Your task to perform on an android device: turn on wifi Image 0: 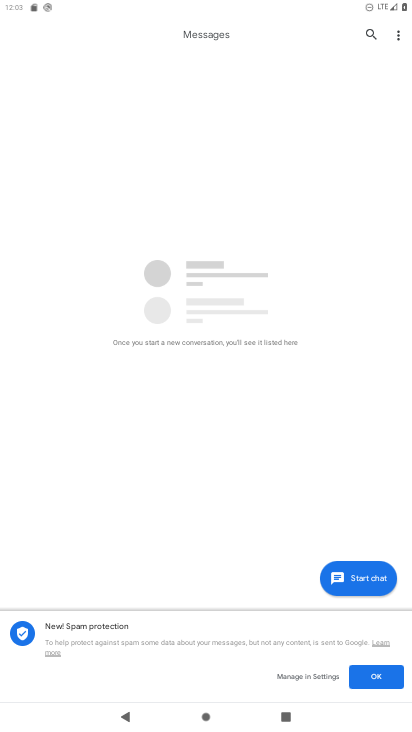
Step 0: press home button
Your task to perform on an android device: turn on wifi Image 1: 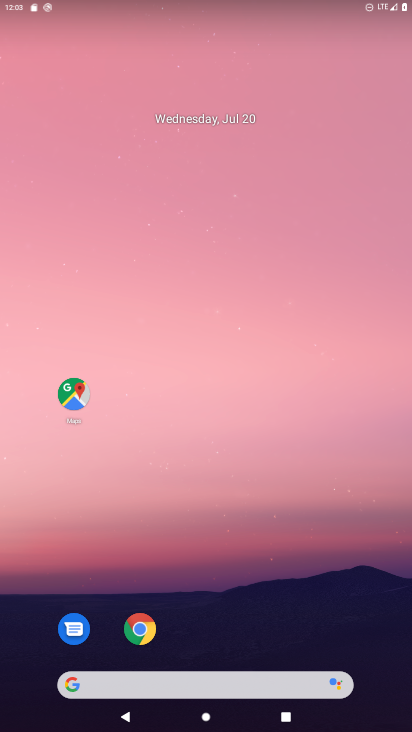
Step 1: drag from (196, 620) to (212, 222)
Your task to perform on an android device: turn on wifi Image 2: 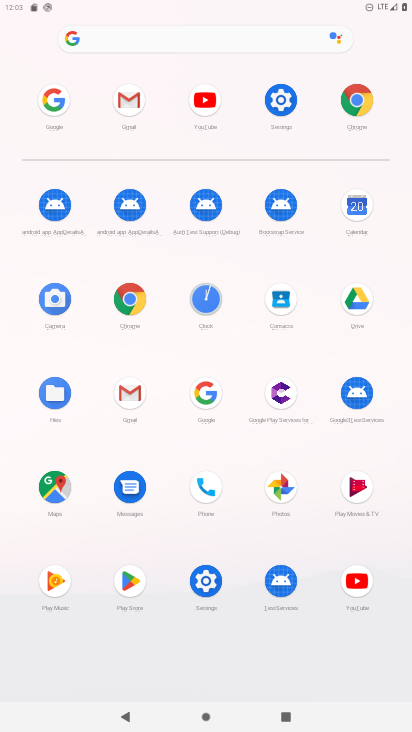
Step 2: click (285, 95)
Your task to perform on an android device: turn on wifi Image 3: 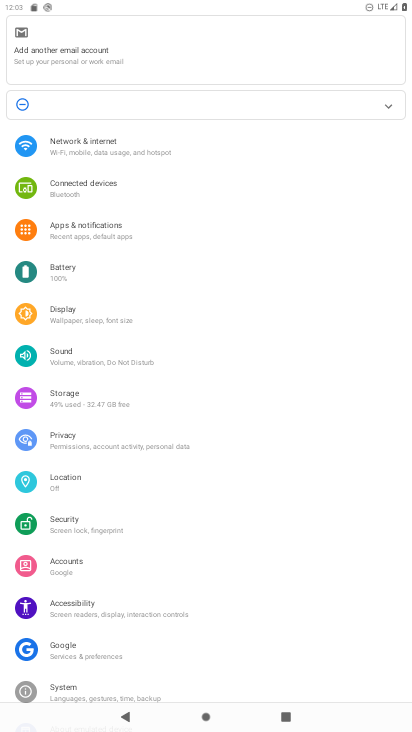
Step 3: click (79, 161)
Your task to perform on an android device: turn on wifi Image 4: 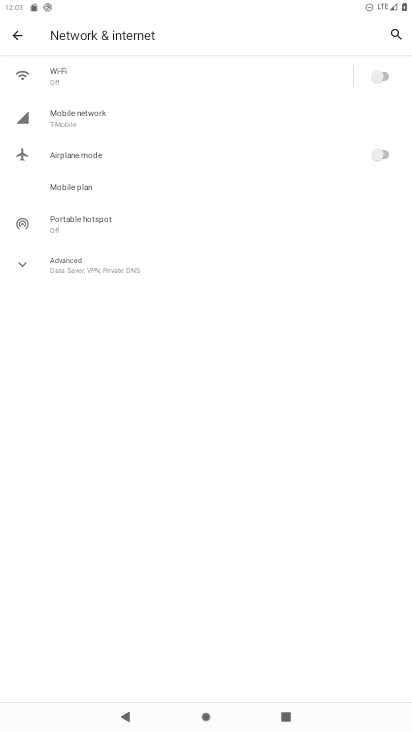
Step 4: click (393, 75)
Your task to perform on an android device: turn on wifi Image 5: 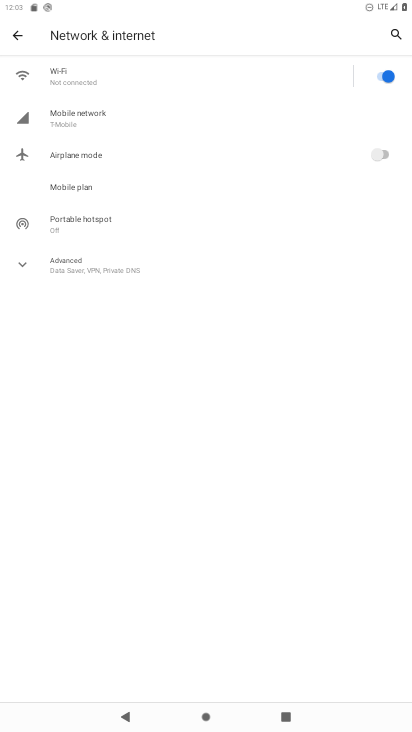
Step 5: task complete